Your task to perform on an android device: toggle priority inbox in the gmail app Image 0: 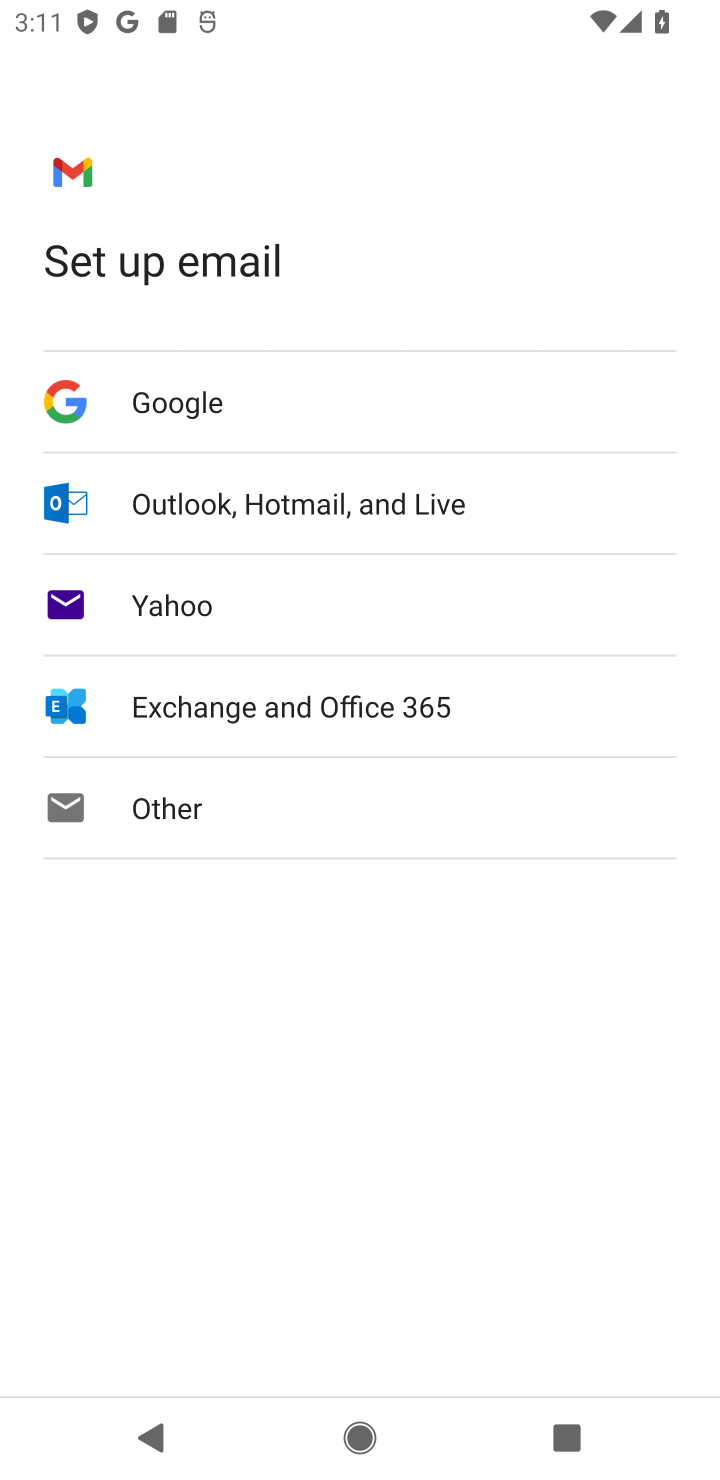
Step 0: press home button
Your task to perform on an android device: toggle priority inbox in the gmail app Image 1: 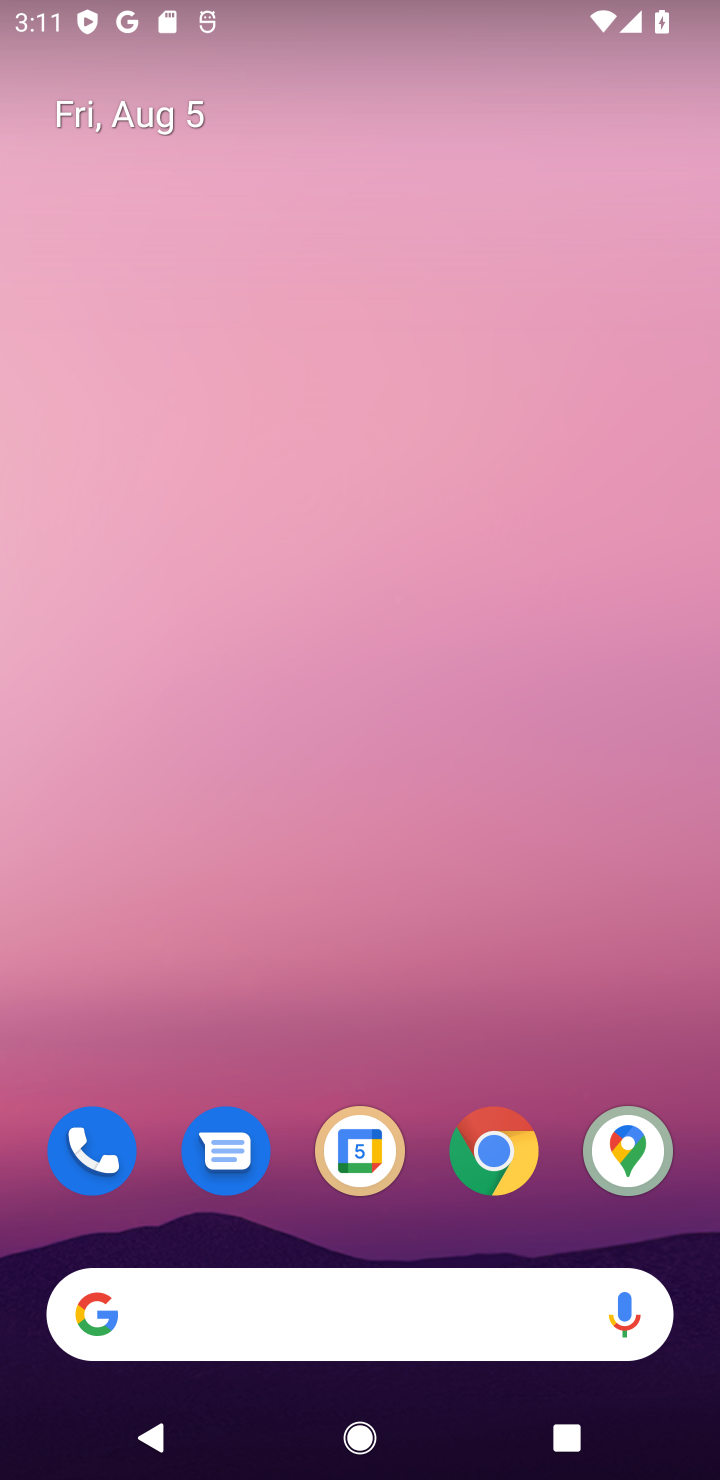
Step 1: drag from (402, 1043) to (266, 17)
Your task to perform on an android device: toggle priority inbox in the gmail app Image 2: 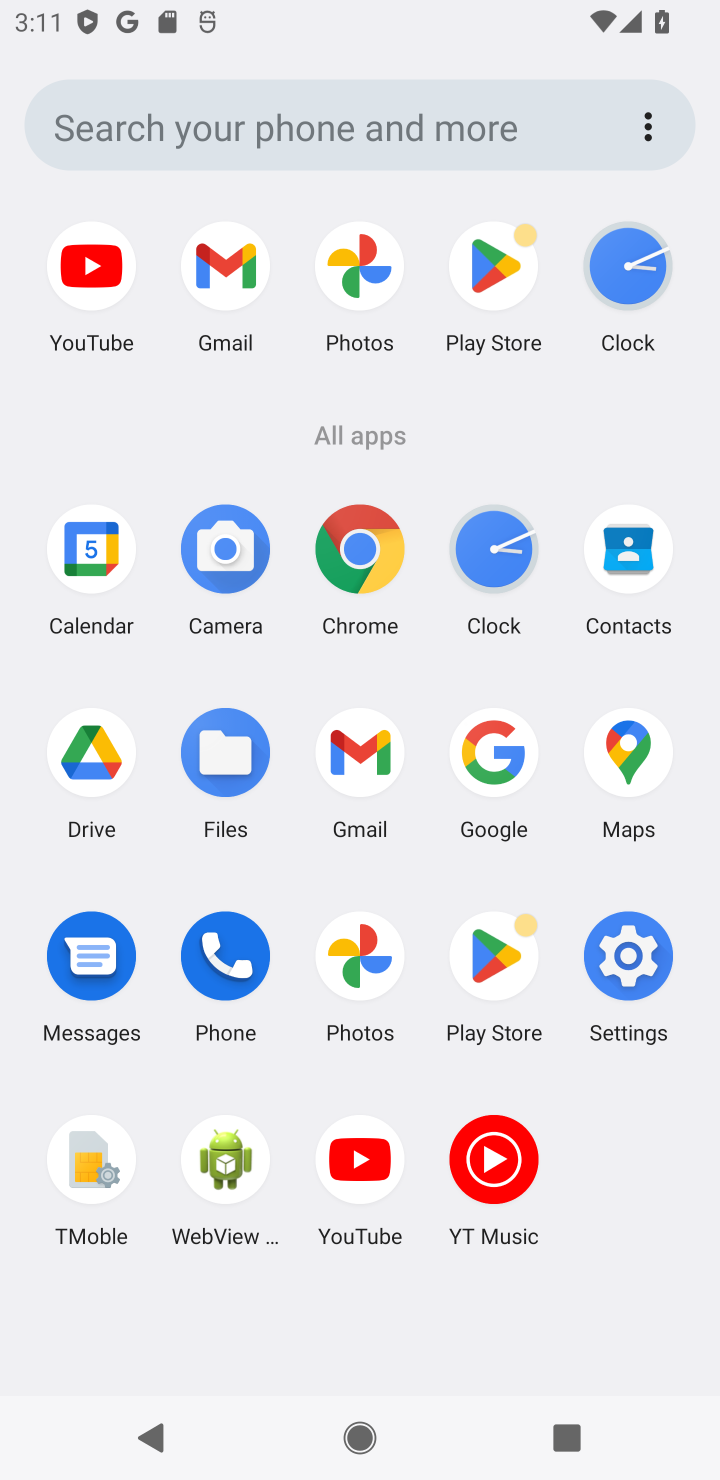
Step 2: click (375, 773)
Your task to perform on an android device: toggle priority inbox in the gmail app Image 3: 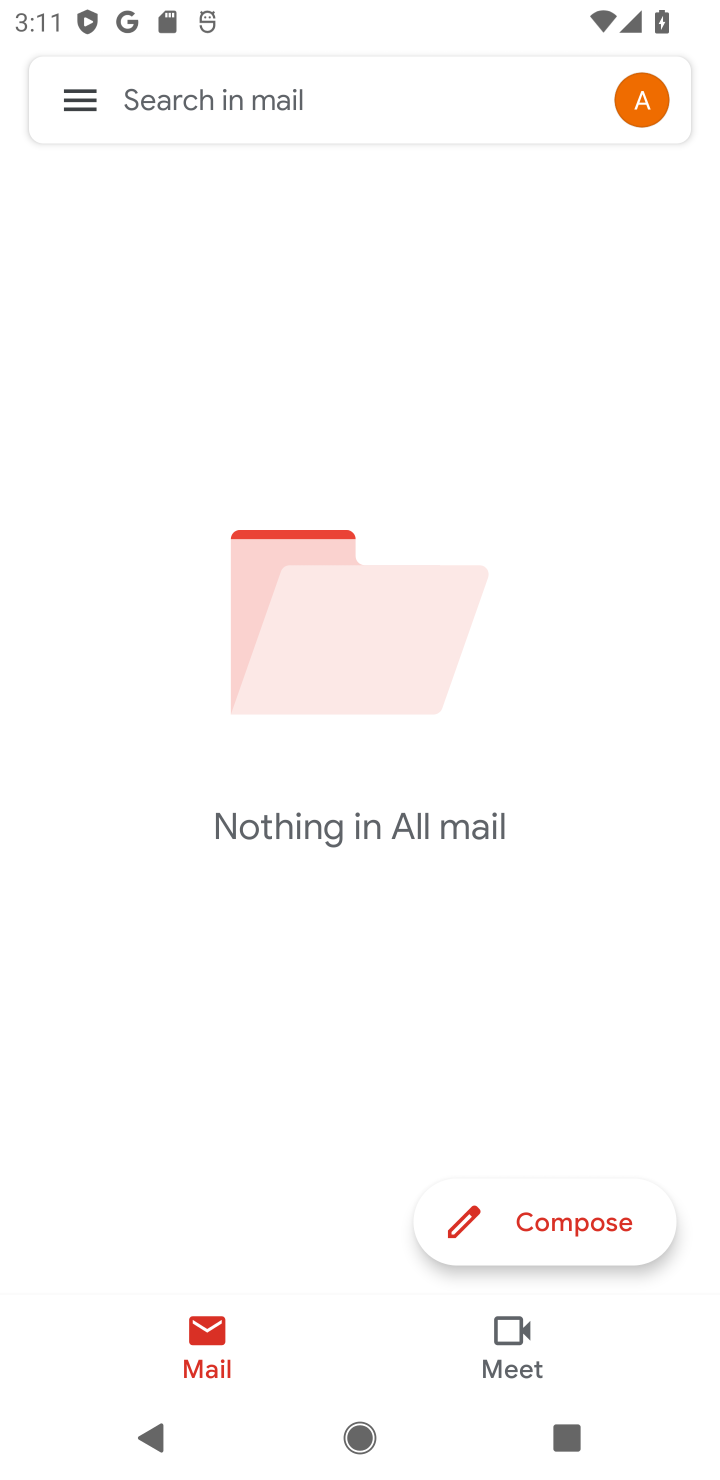
Step 3: click (85, 102)
Your task to perform on an android device: toggle priority inbox in the gmail app Image 4: 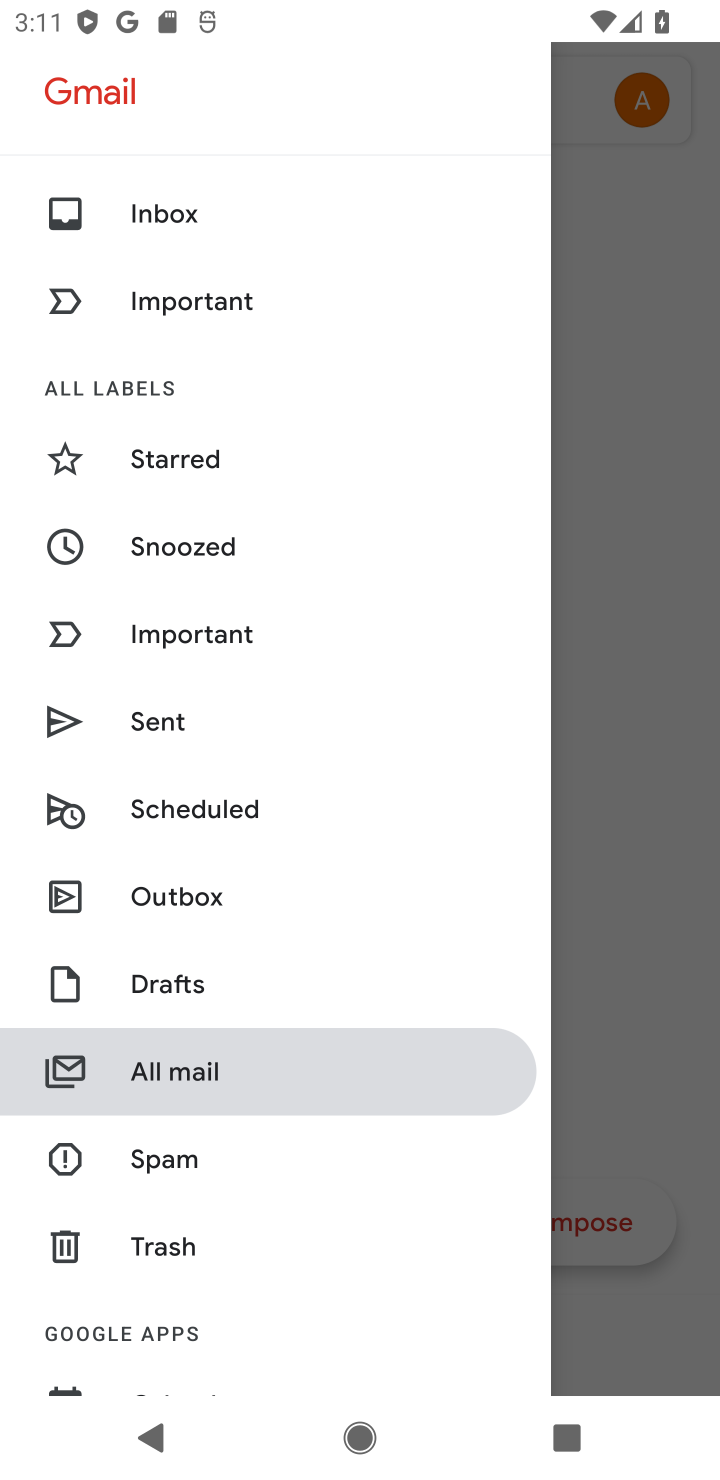
Step 4: drag from (263, 1177) to (231, 171)
Your task to perform on an android device: toggle priority inbox in the gmail app Image 5: 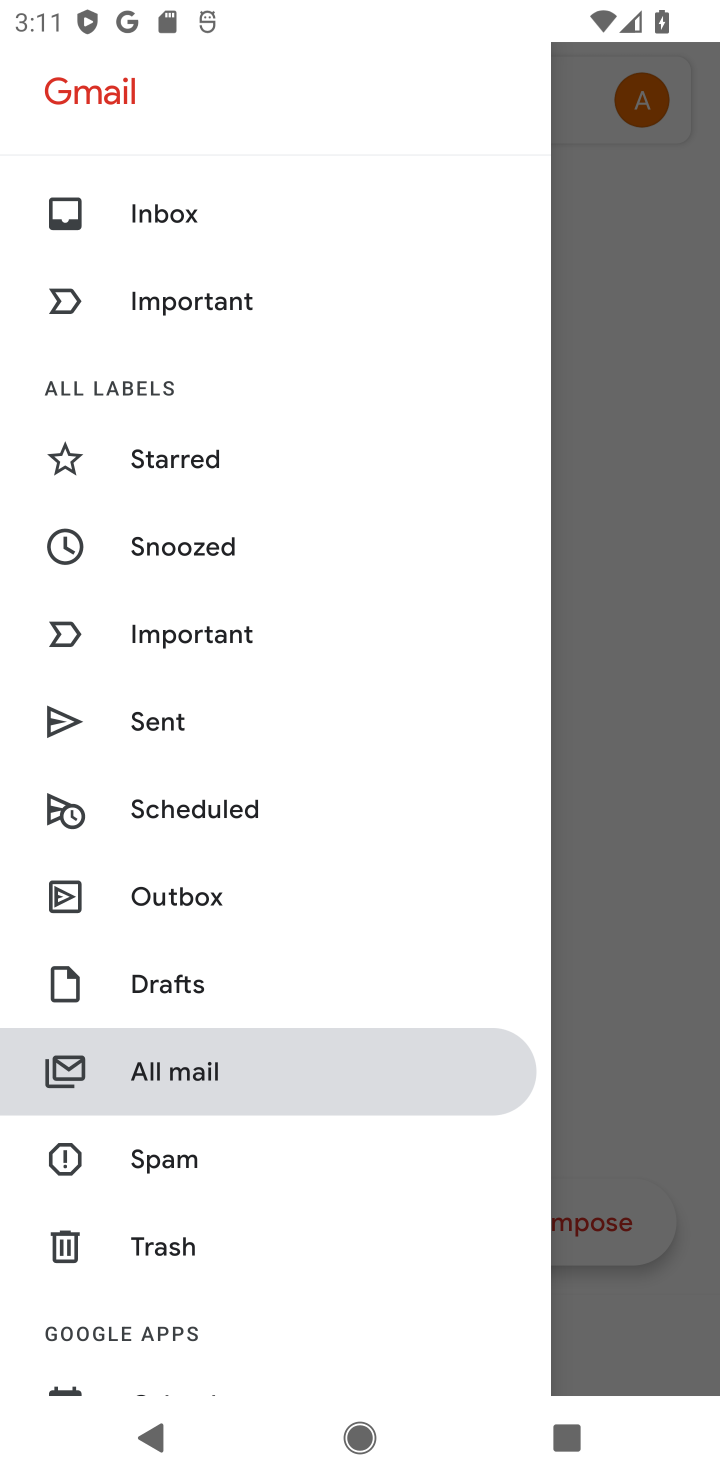
Step 5: drag from (205, 1235) to (161, 101)
Your task to perform on an android device: toggle priority inbox in the gmail app Image 6: 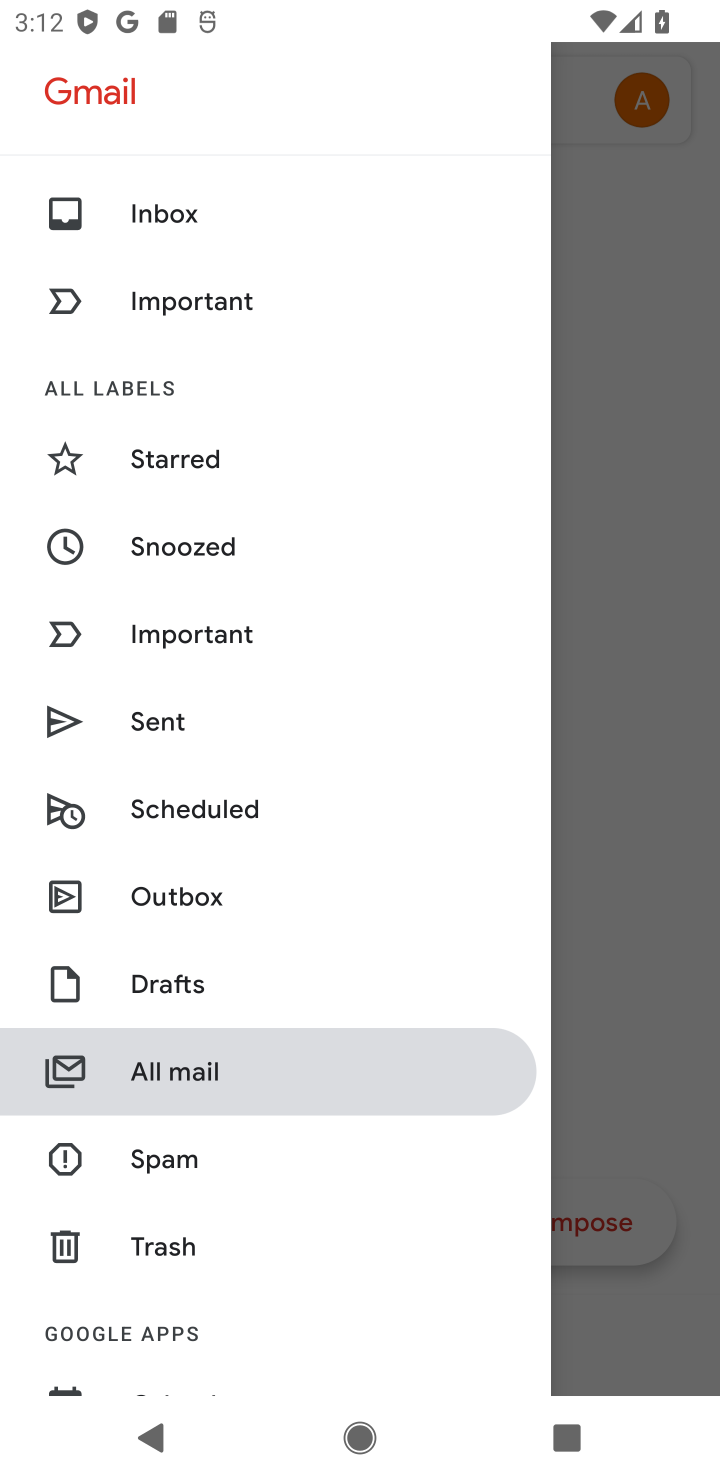
Step 6: drag from (218, 1216) to (155, 515)
Your task to perform on an android device: toggle priority inbox in the gmail app Image 7: 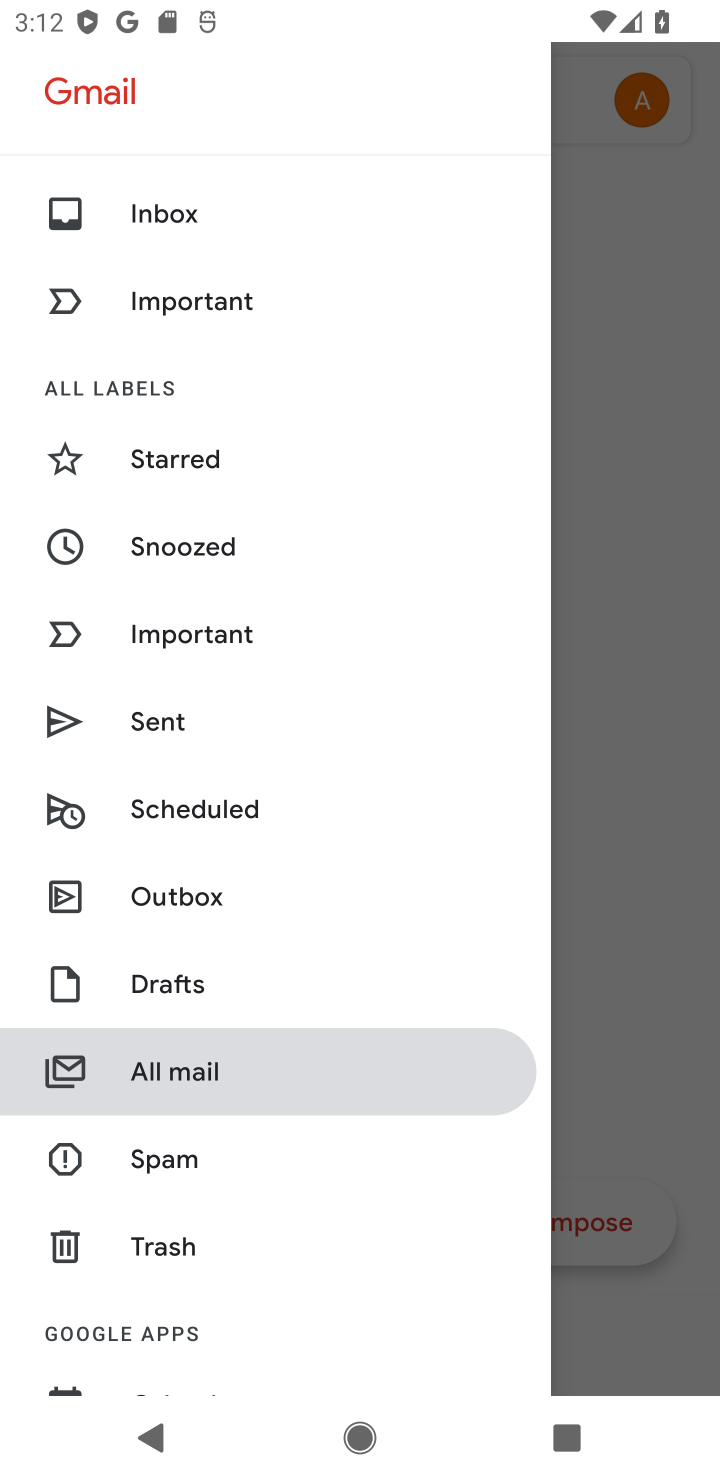
Step 7: drag from (331, 1170) to (247, 473)
Your task to perform on an android device: toggle priority inbox in the gmail app Image 8: 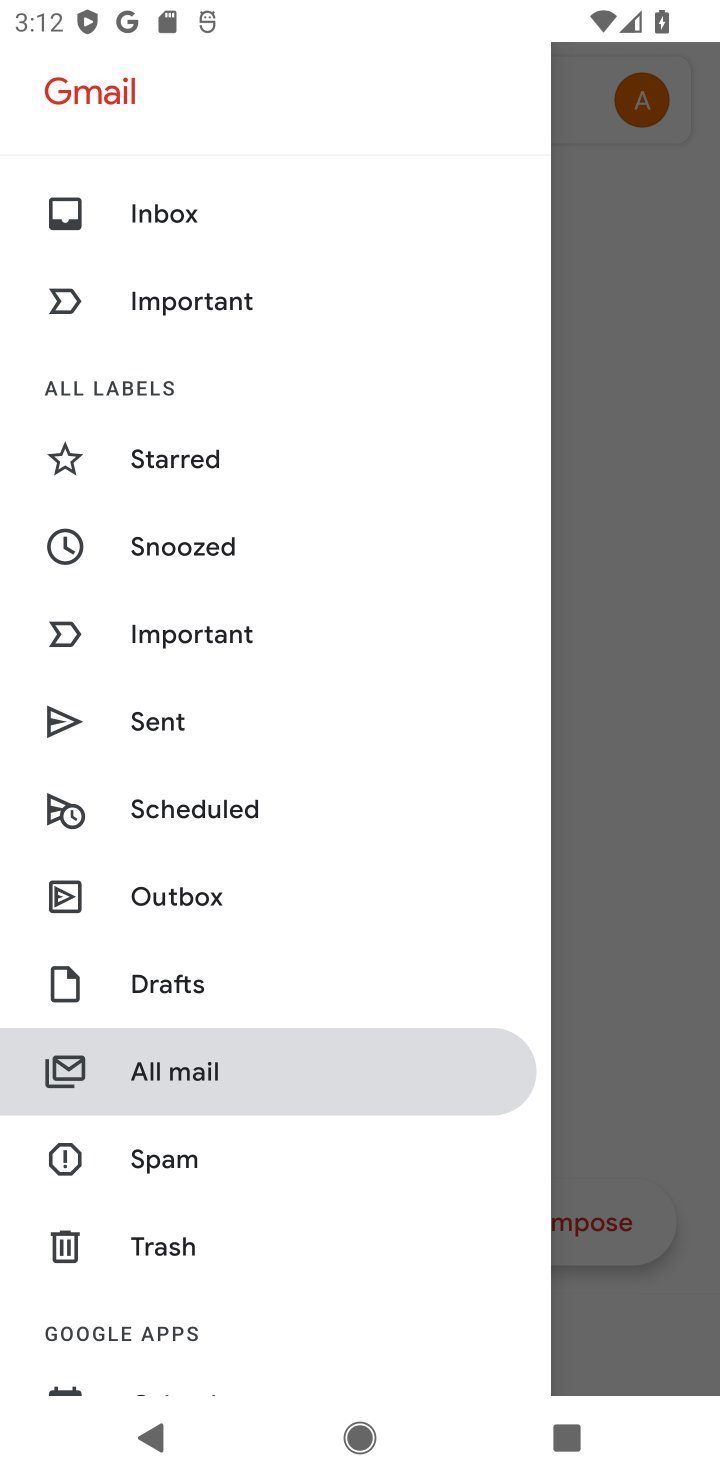
Step 8: drag from (274, 1295) to (140, 684)
Your task to perform on an android device: toggle priority inbox in the gmail app Image 9: 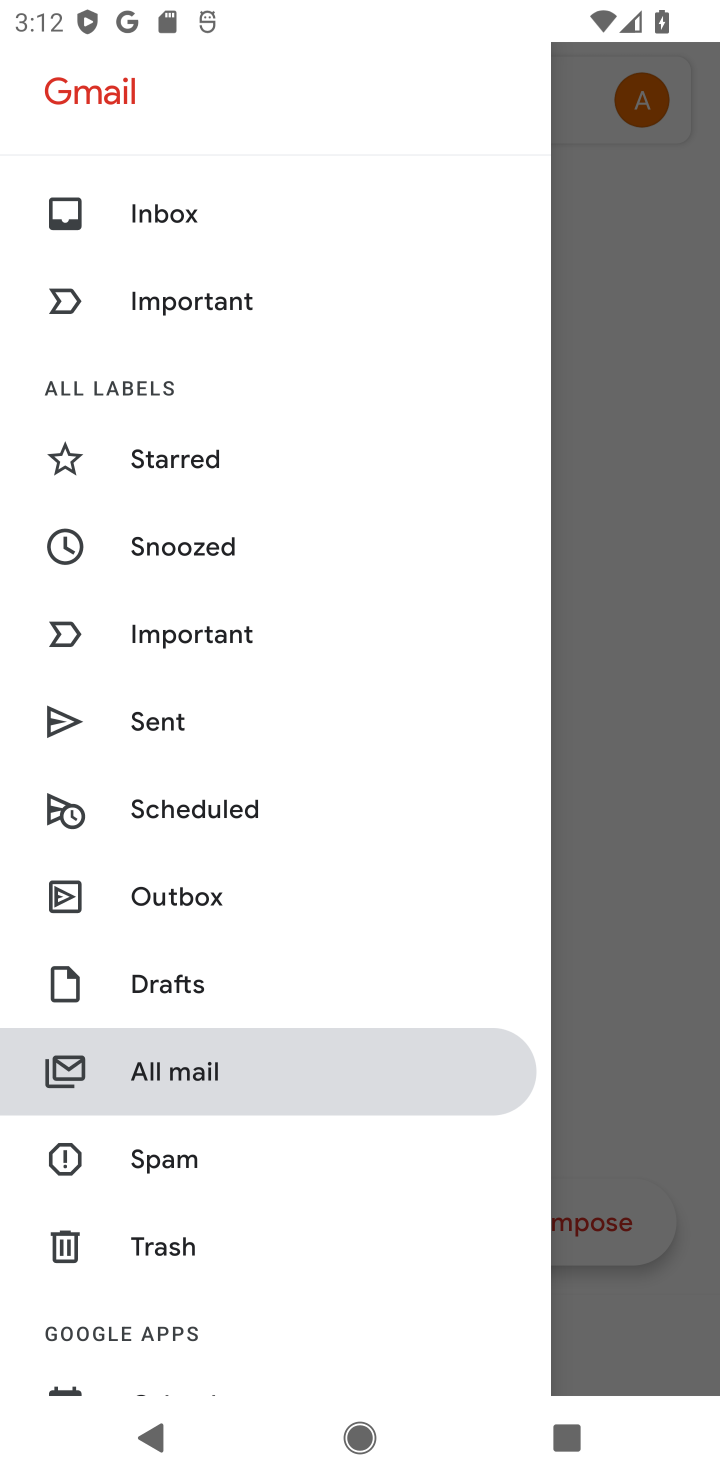
Step 9: drag from (246, 1224) to (150, 535)
Your task to perform on an android device: toggle priority inbox in the gmail app Image 10: 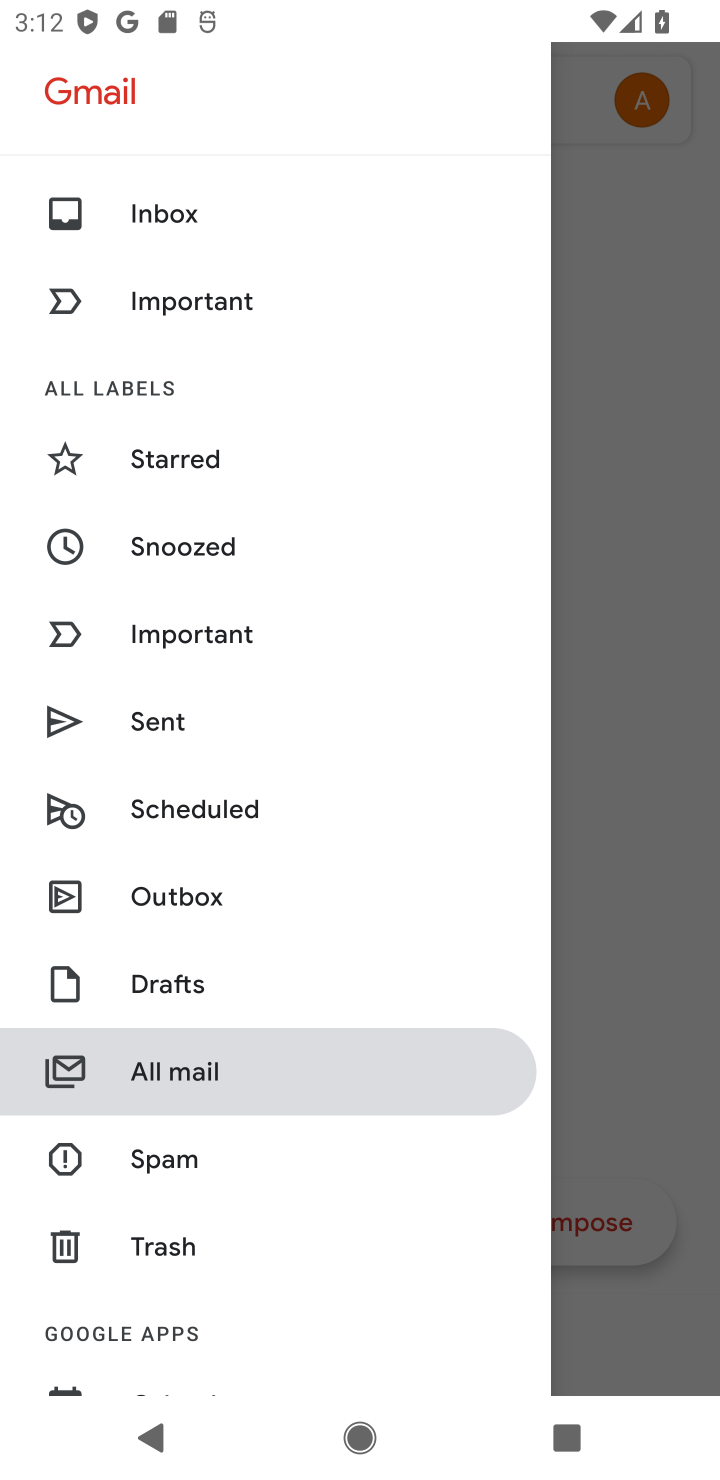
Step 10: drag from (77, 1266) to (47, 213)
Your task to perform on an android device: toggle priority inbox in the gmail app Image 11: 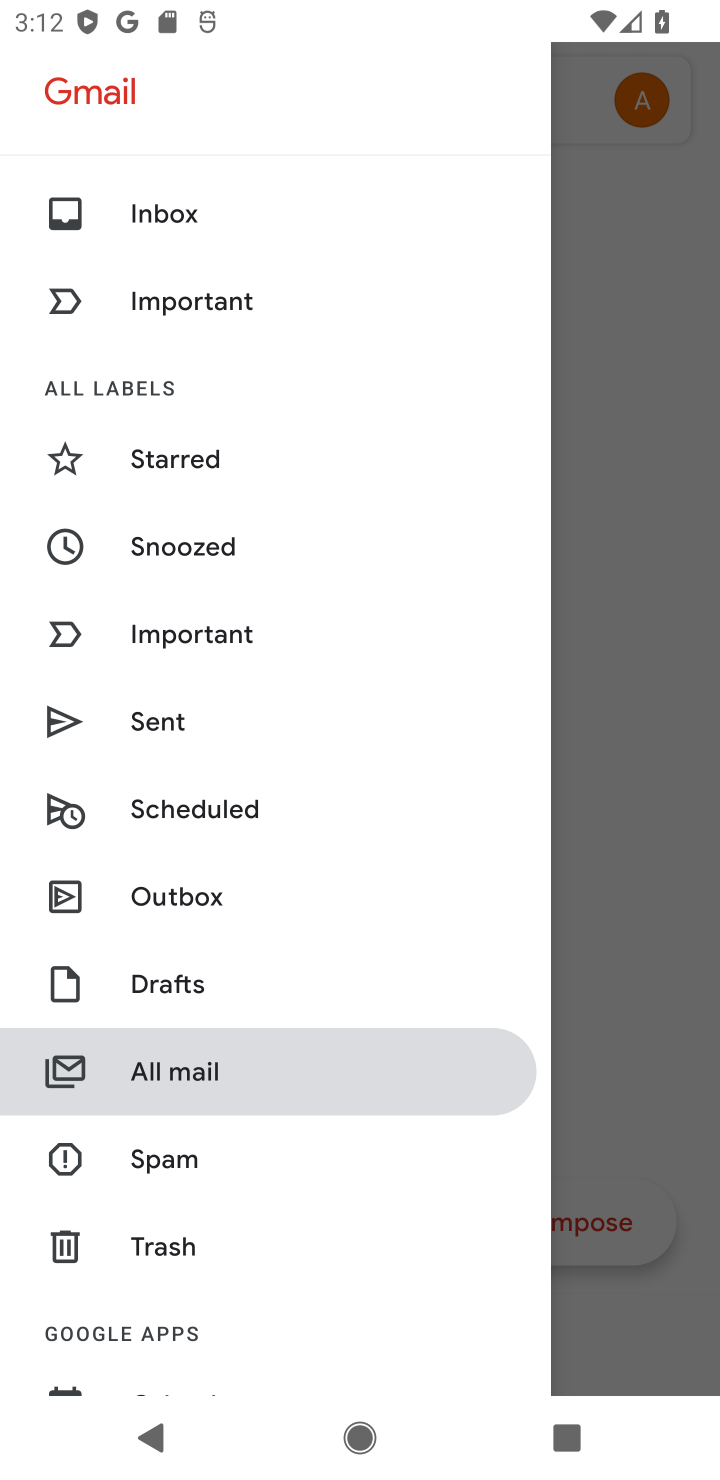
Step 11: drag from (179, 1030) to (153, 25)
Your task to perform on an android device: toggle priority inbox in the gmail app Image 12: 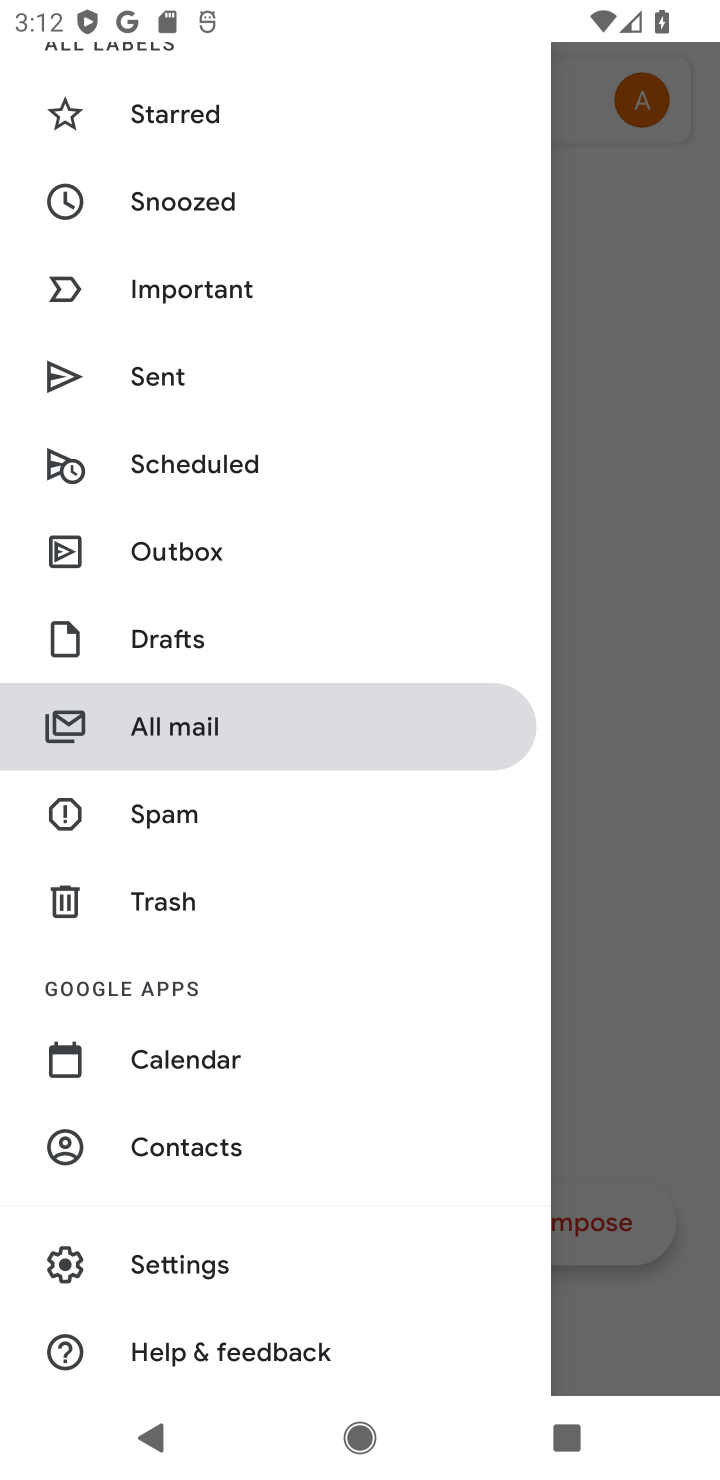
Step 12: click (215, 1249)
Your task to perform on an android device: toggle priority inbox in the gmail app Image 13: 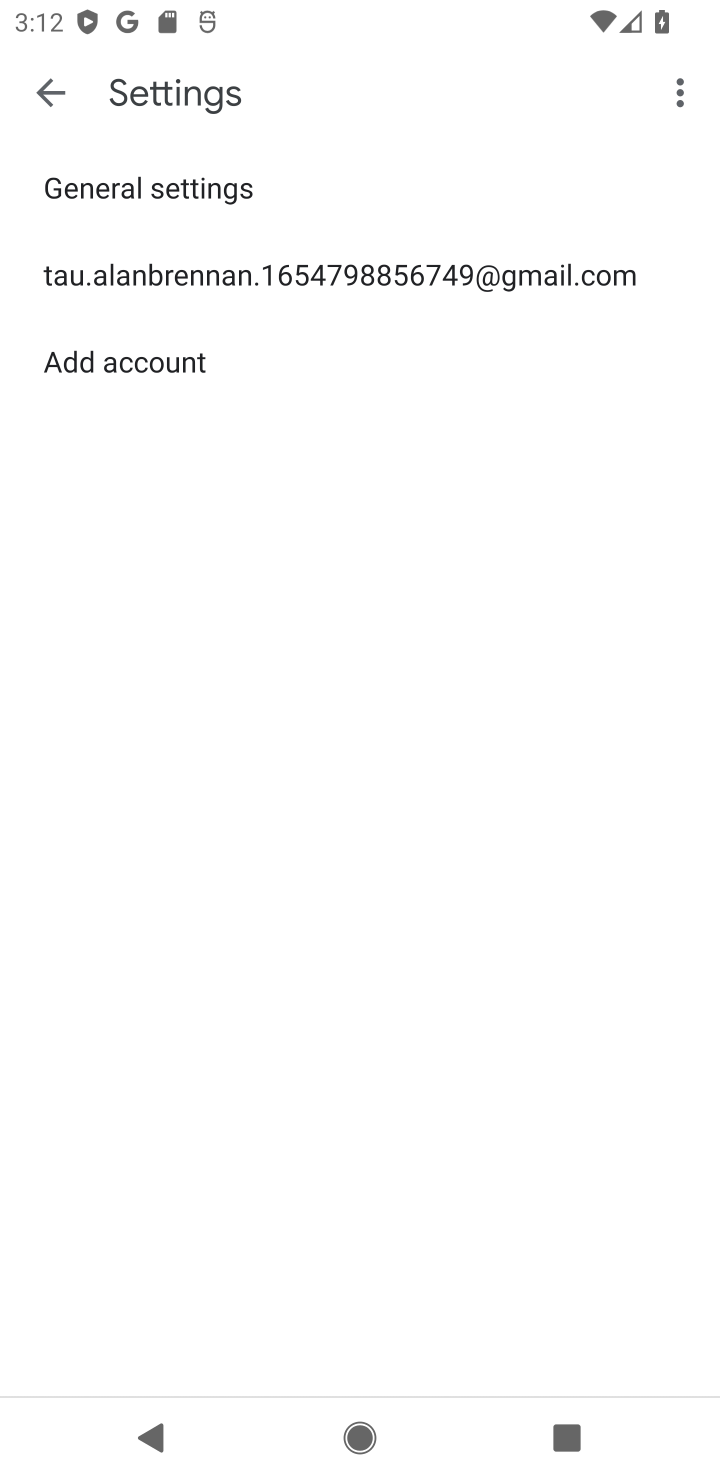
Step 13: click (268, 286)
Your task to perform on an android device: toggle priority inbox in the gmail app Image 14: 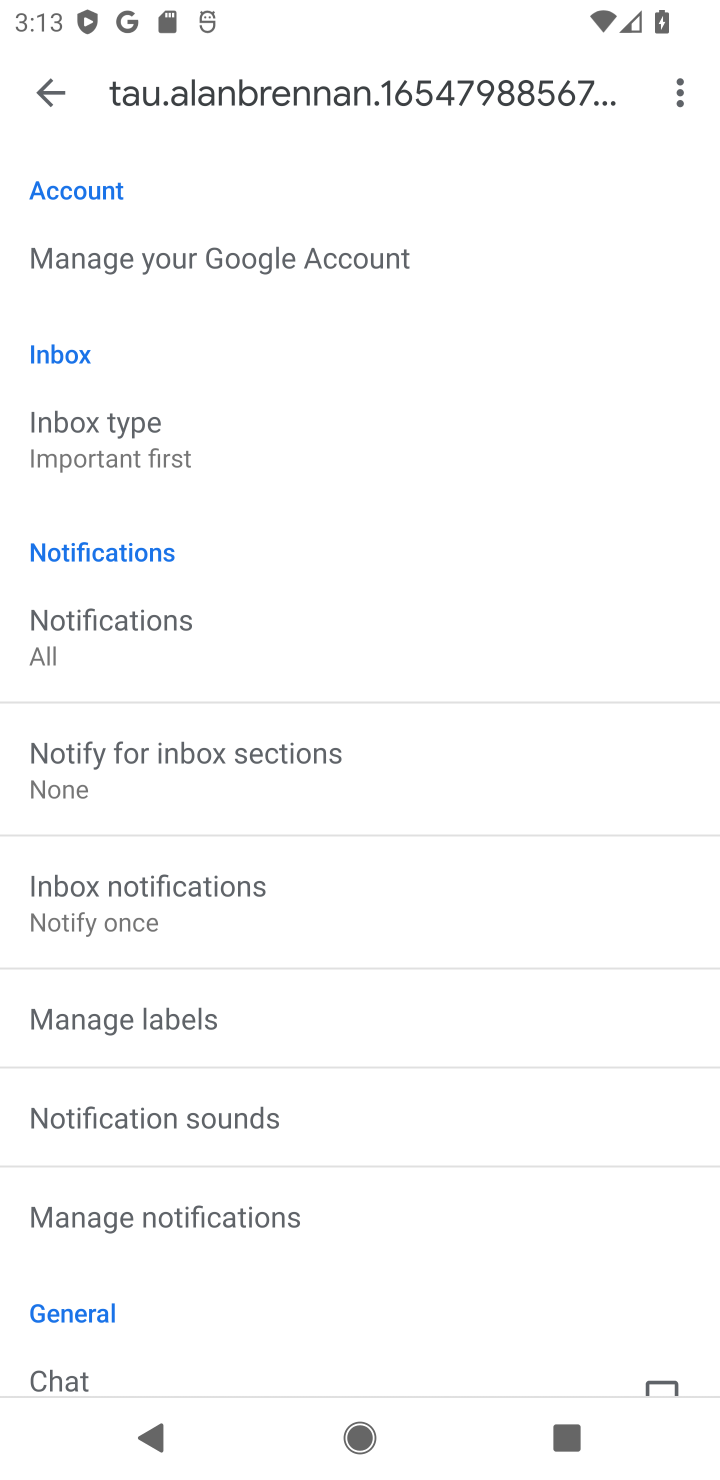
Step 14: click (146, 427)
Your task to perform on an android device: toggle priority inbox in the gmail app Image 15: 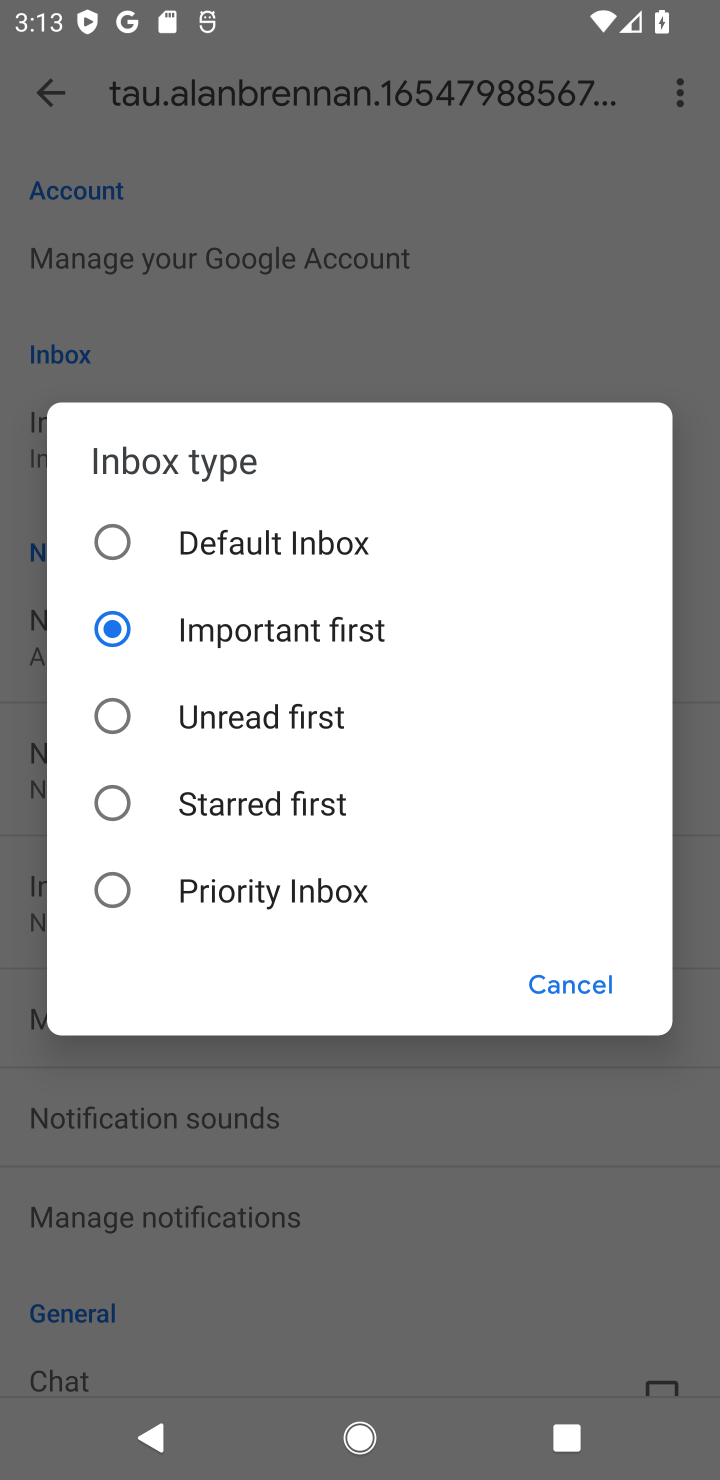
Step 15: click (209, 876)
Your task to perform on an android device: toggle priority inbox in the gmail app Image 16: 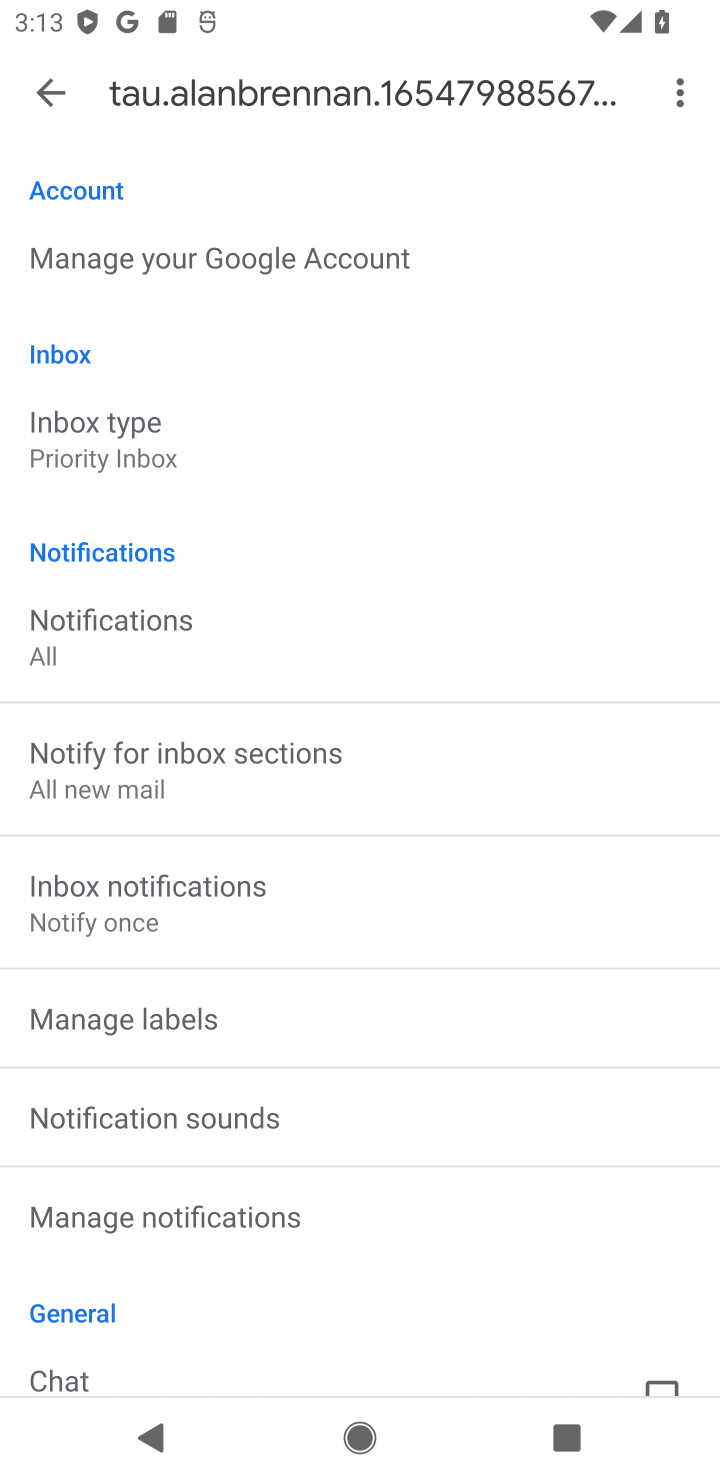
Step 16: task complete